Your task to perform on an android device: install app "Skype" Image 0: 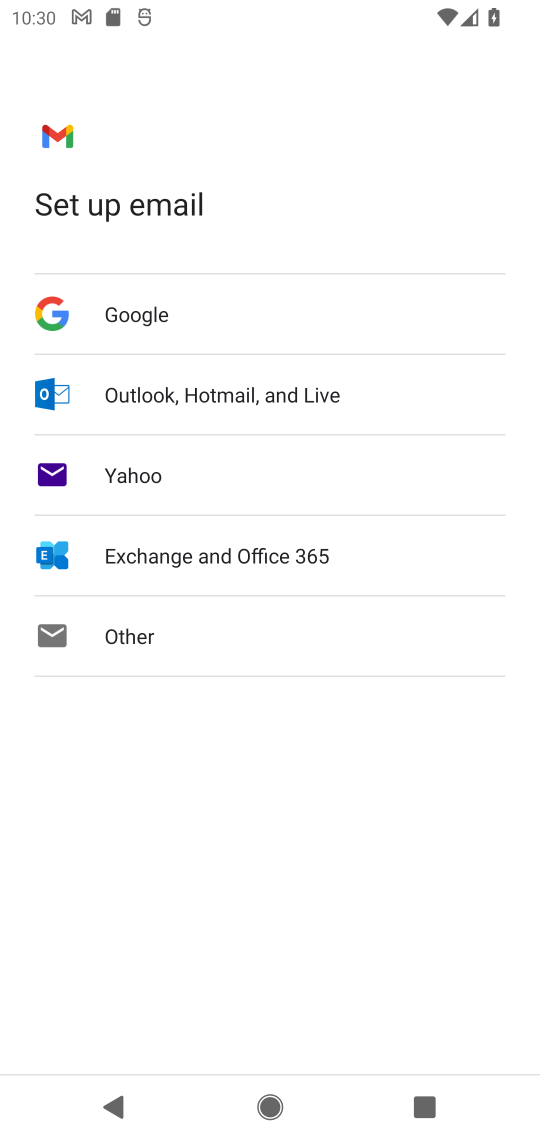
Step 0: press home button
Your task to perform on an android device: install app "Skype" Image 1: 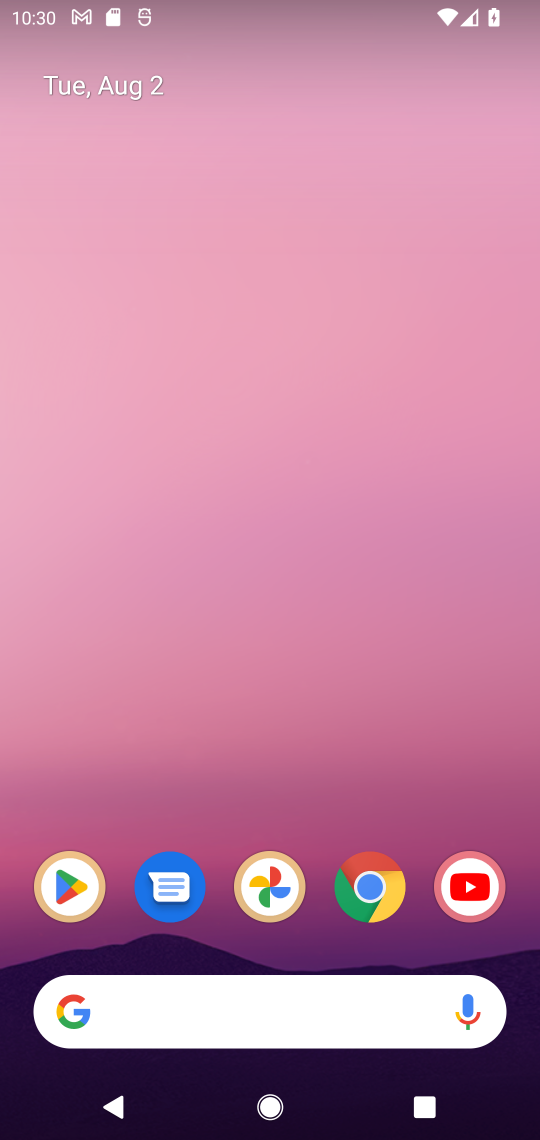
Step 1: drag from (250, 972) to (278, 16)
Your task to perform on an android device: install app "Skype" Image 2: 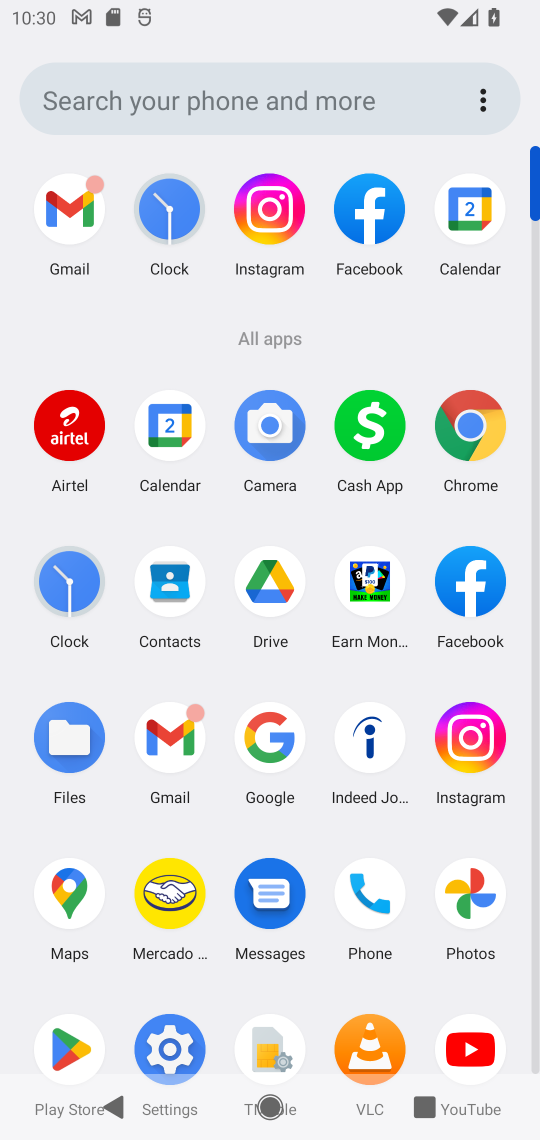
Step 2: click (74, 1043)
Your task to perform on an android device: install app "Skype" Image 3: 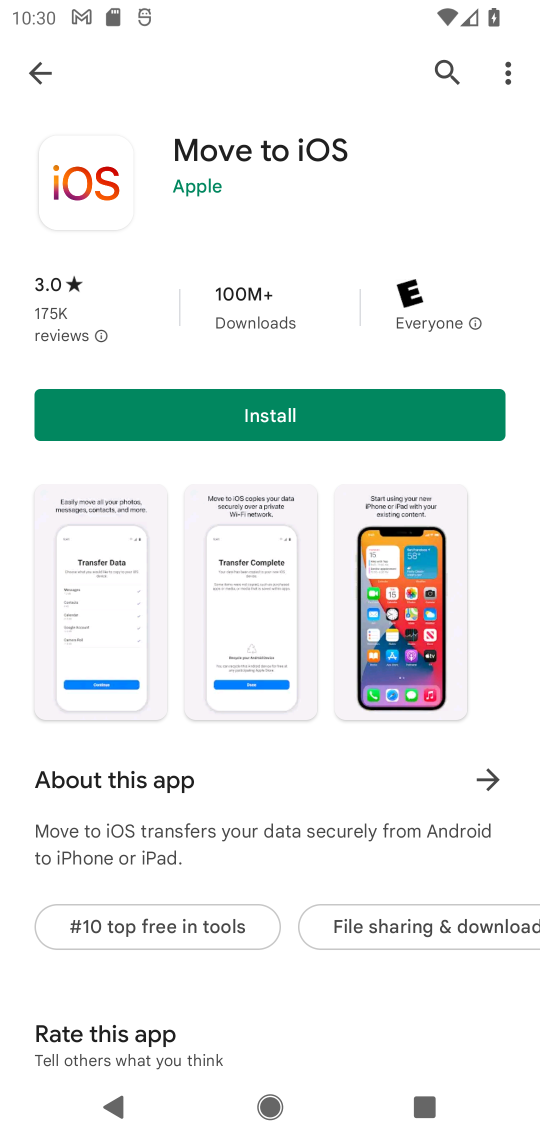
Step 3: click (41, 81)
Your task to perform on an android device: install app "Skype" Image 4: 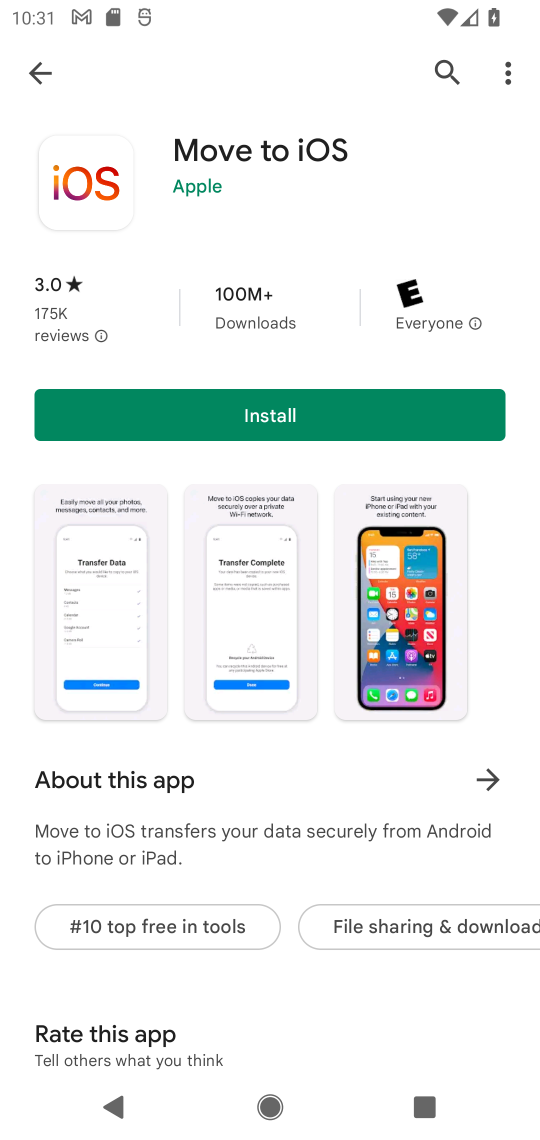
Step 4: click (45, 55)
Your task to perform on an android device: install app "Skype" Image 5: 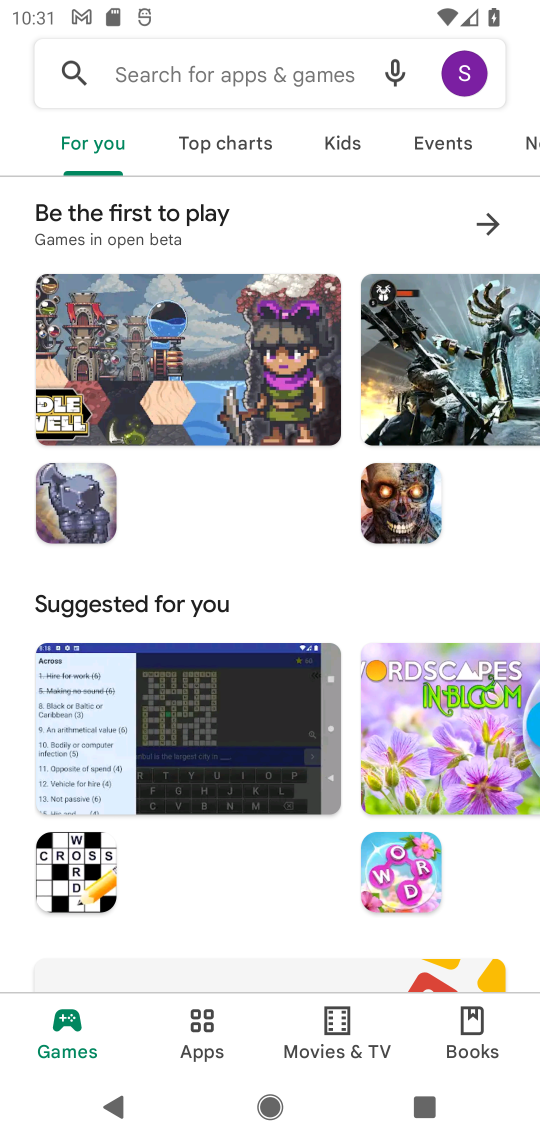
Step 5: click (112, 75)
Your task to perform on an android device: install app "Skype" Image 6: 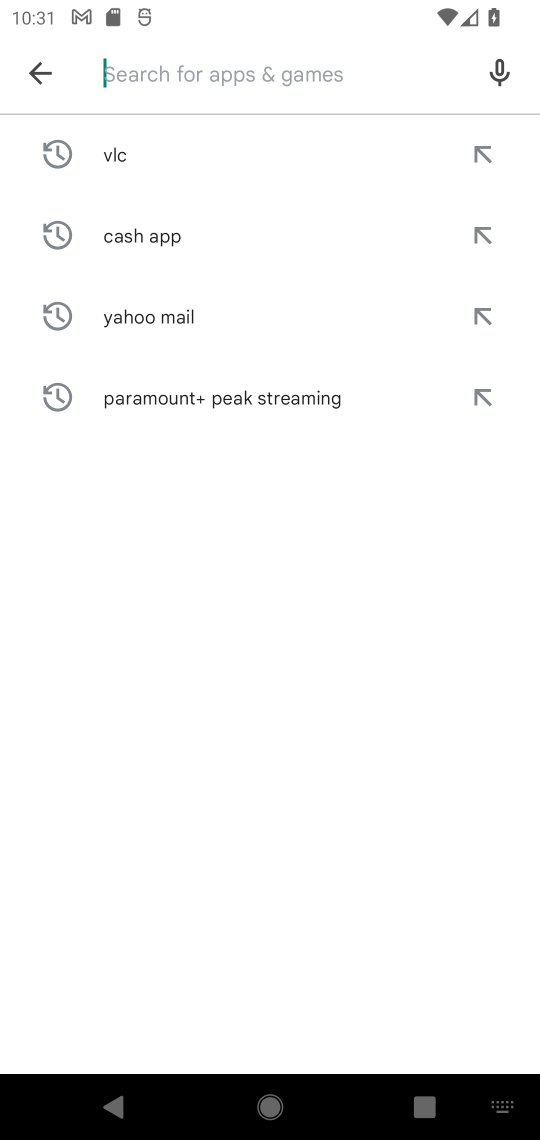
Step 6: type "Skype"
Your task to perform on an android device: install app "Skype" Image 7: 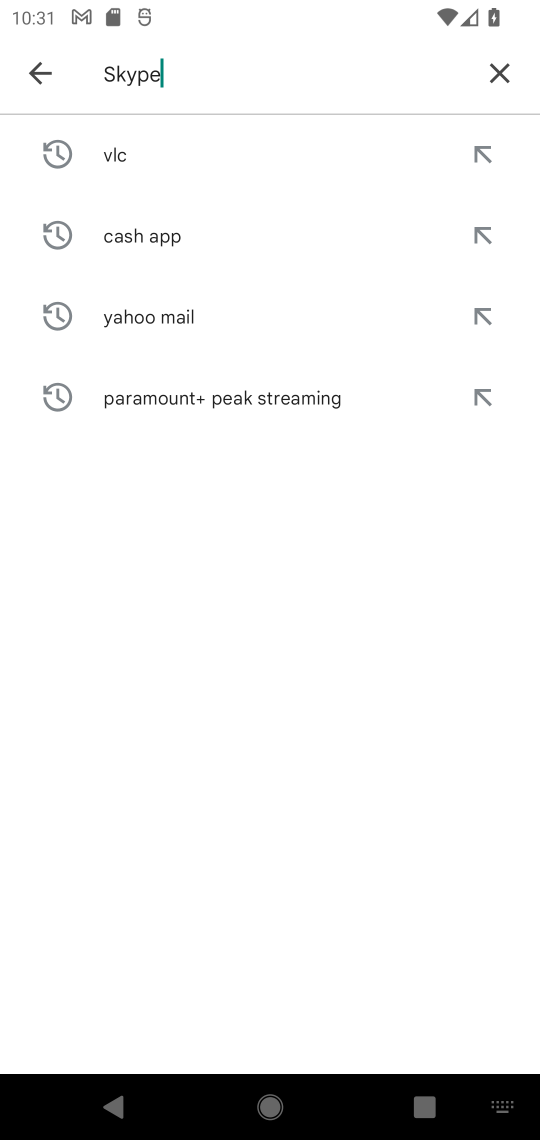
Step 7: type ""
Your task to perform on an android device: install app "Skype" Image 8: 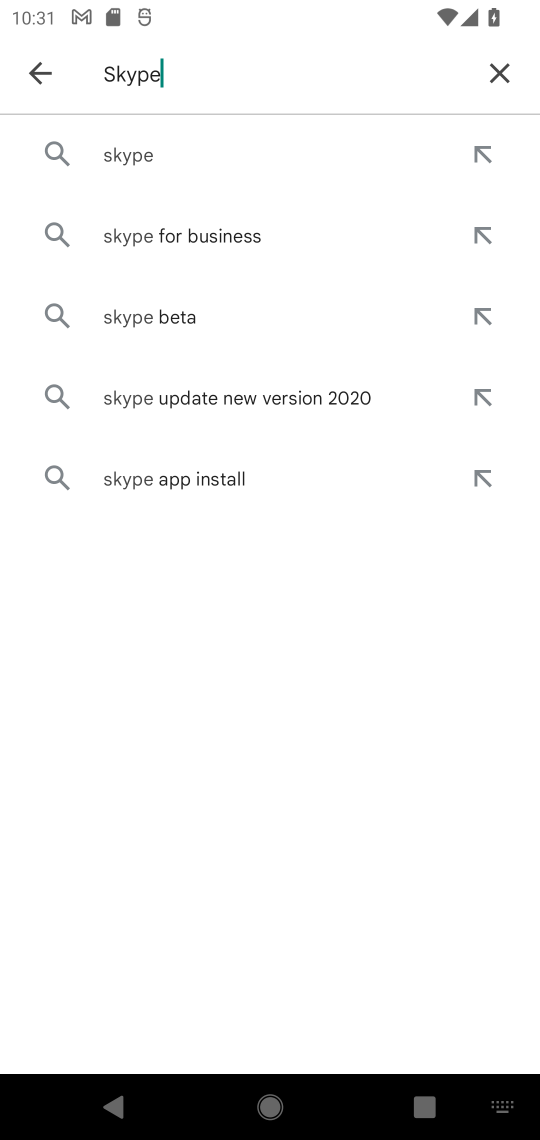
Step 8: click (135, 143)
Your task to perform on an android device: install app "Skype" Image 9: 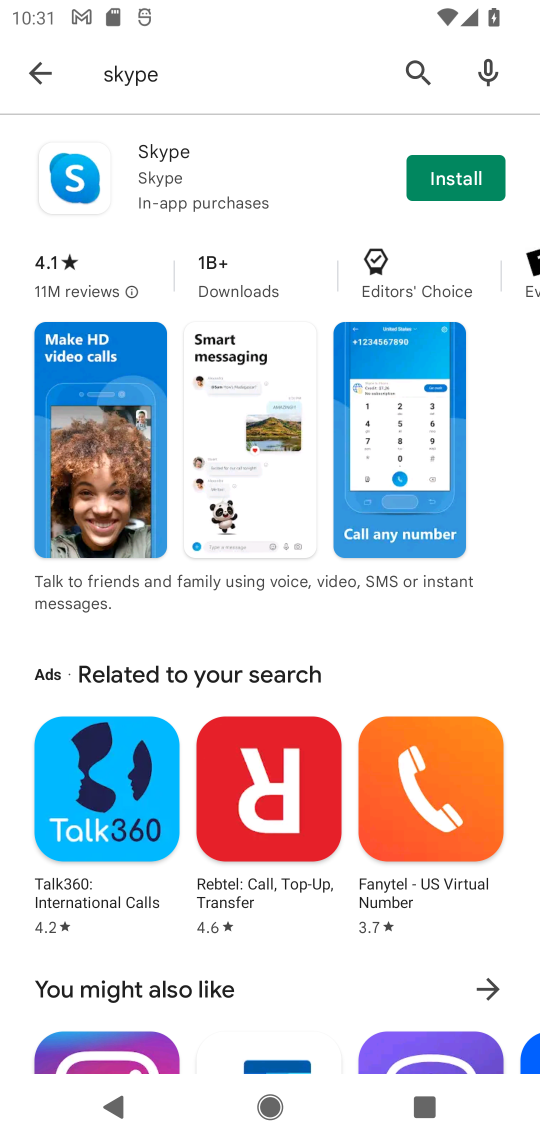
Step 9: click (463, 178)
Your task to perform on an android device: install app "Skype" Image 10: 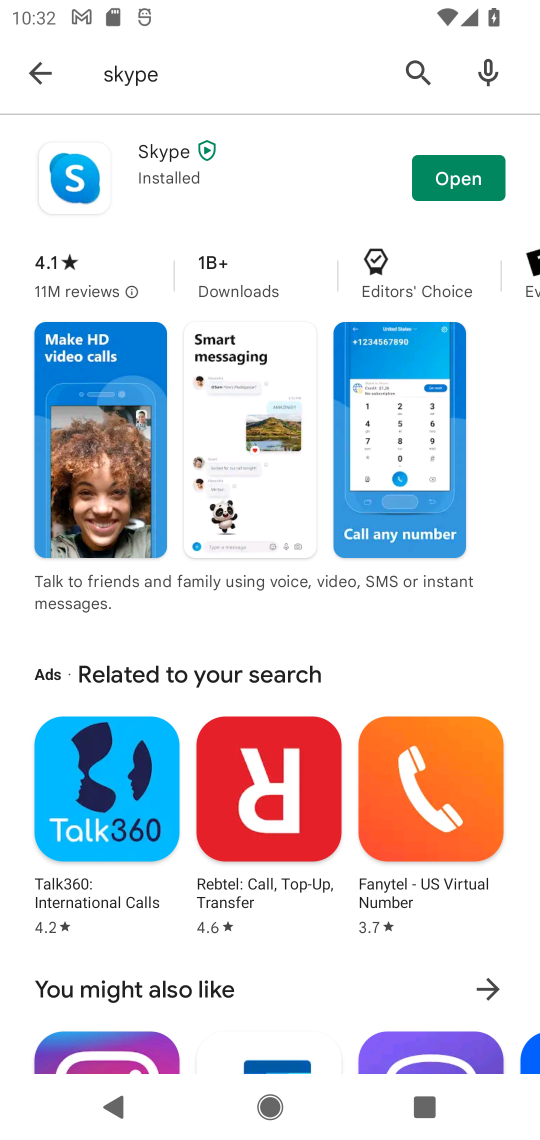
Step 10: task complete